Your task to perform on an android device: open the mobile data screen to see how much data has been used Image 0: 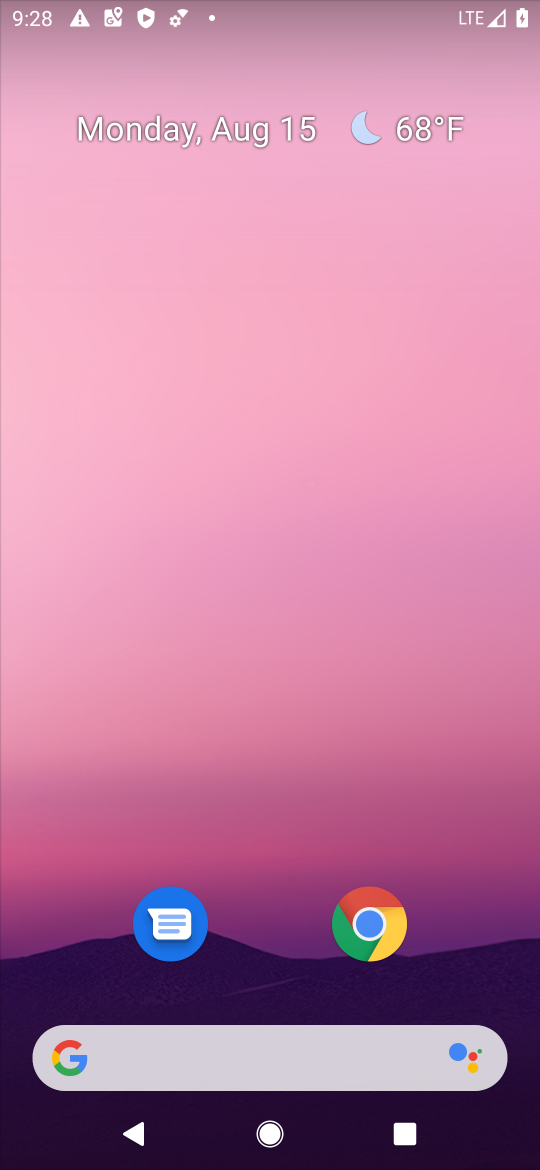
Step 0: drag from (501, 991) to (433, 101)
Your task to perform on an android device: open the mobile data screen to see how much data has been used Image 1: 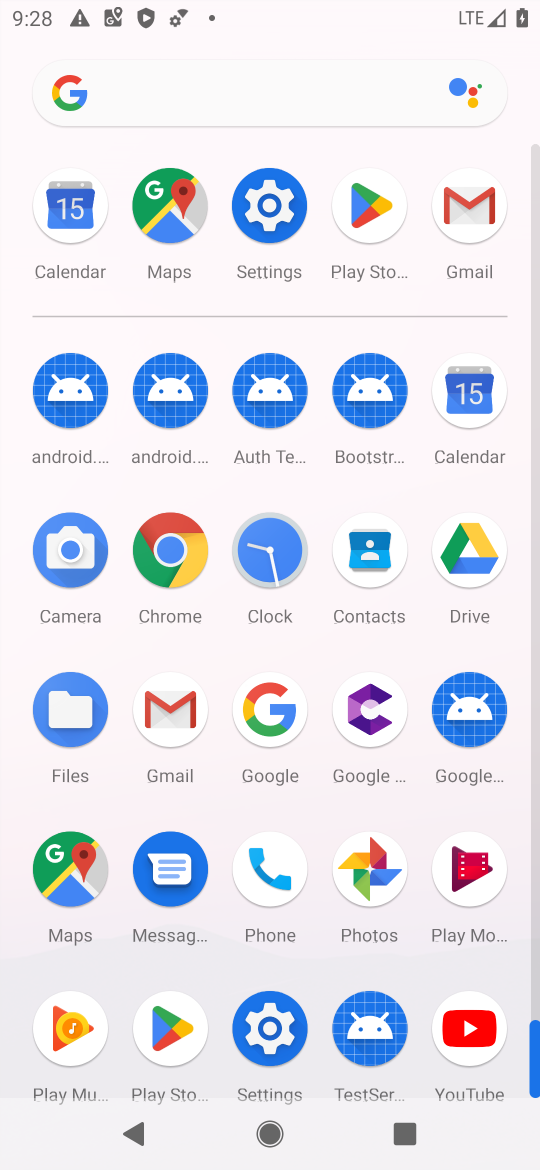
Step 1: click (270, 1028)
Your task to perform on an android device: open the mobile data screen to see how much data has been used Image 2: 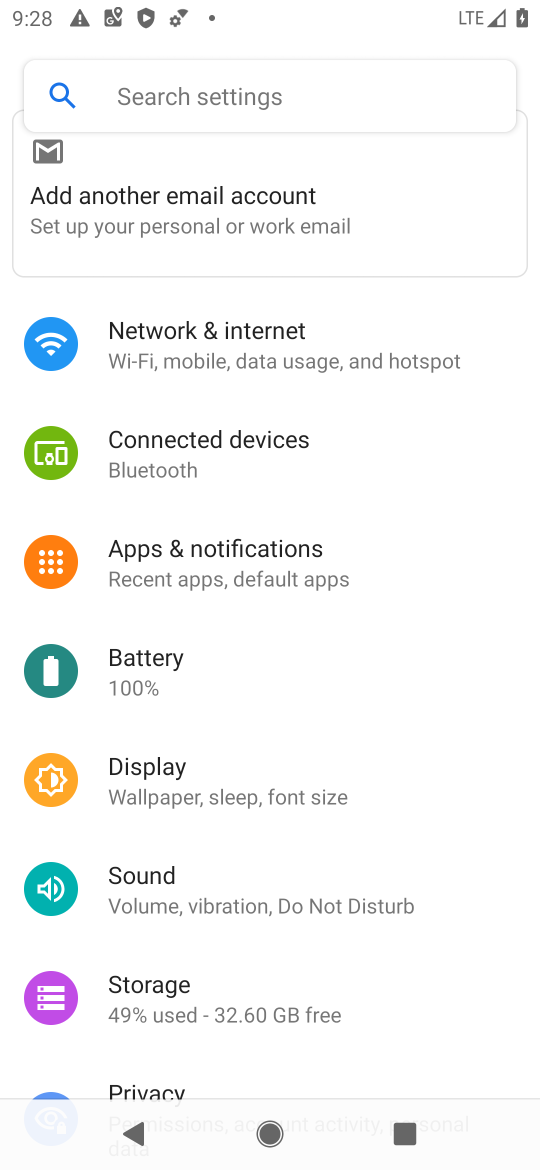
Step 2: click (195, 344)
Your task to perform on an android device: open the mobile data screen to see how much data has been used Image 3: 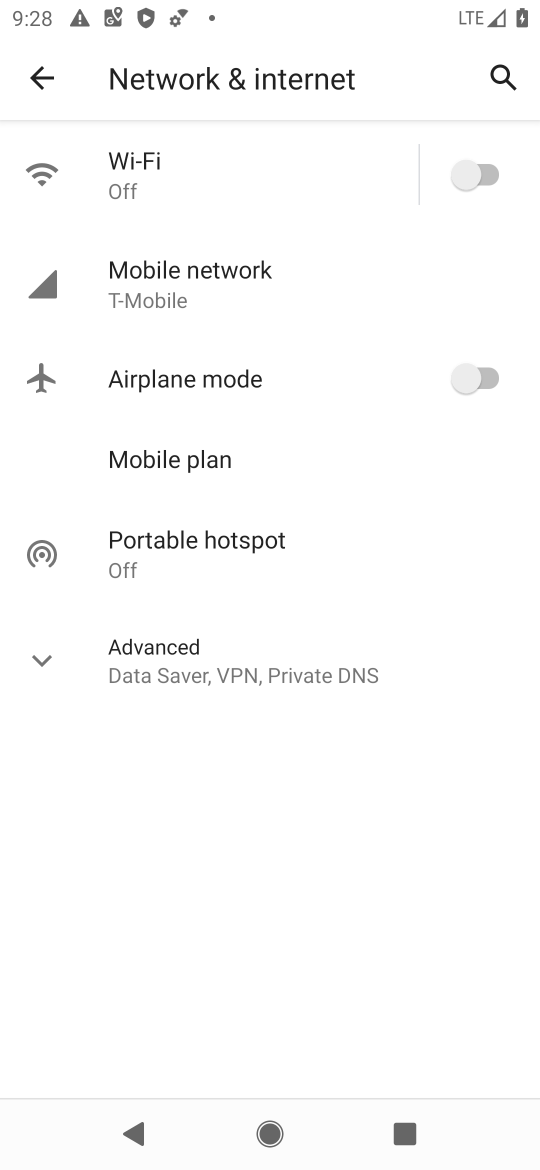
Step 3: click (145, 276)
Your task to perform on an android device: open the mobile data screen to see how much data has been used Image 4: 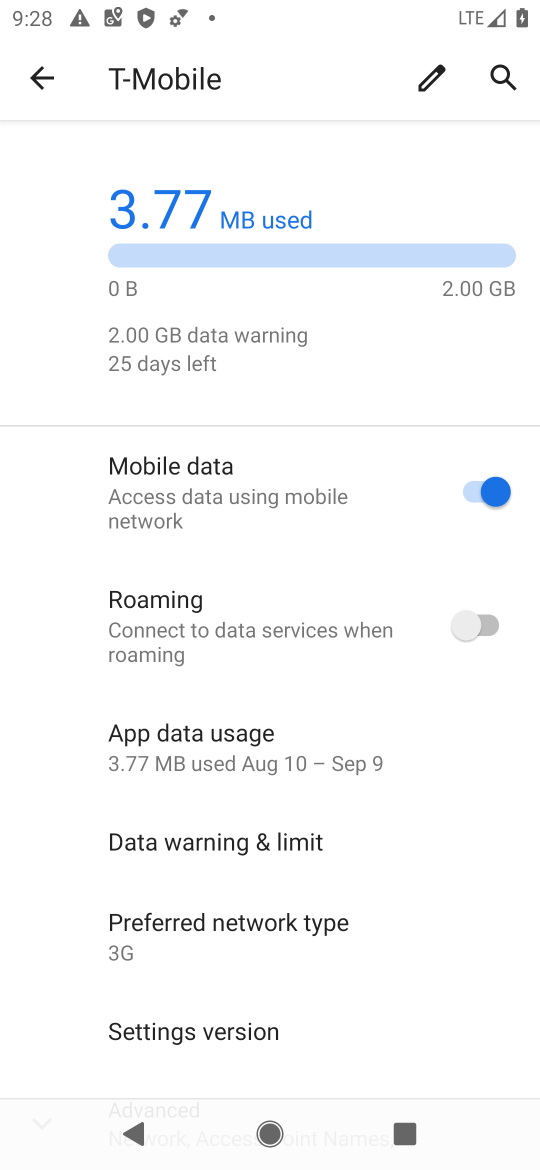
Step 4: task complete